Your task to perform on an android device: Open display settings Image 0: 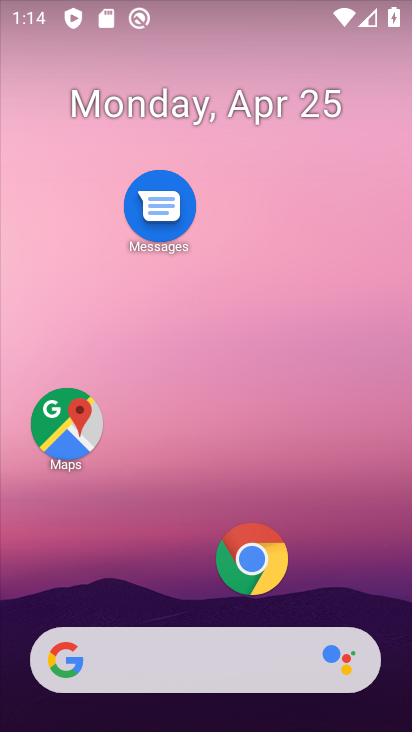
Step 0: drag from (166, 562) to (216, 184)
Your task to perform on an android device: Open display settings Image 1: 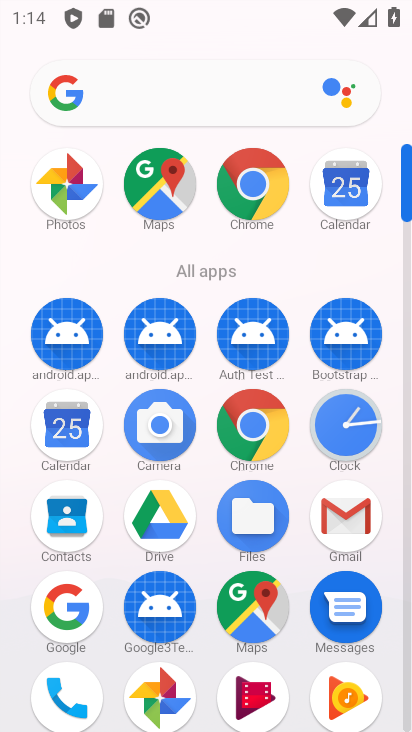
Step 1: drag from (204, 667) to (228, 284)
Your task to perform on an android device: Open display settings Image 2: 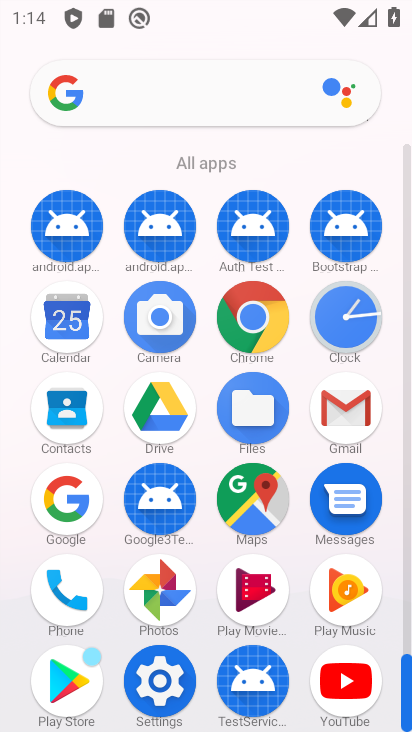
Step 2: click (158, 660)
Your task to perform on an android device: Open display settings Image 3: 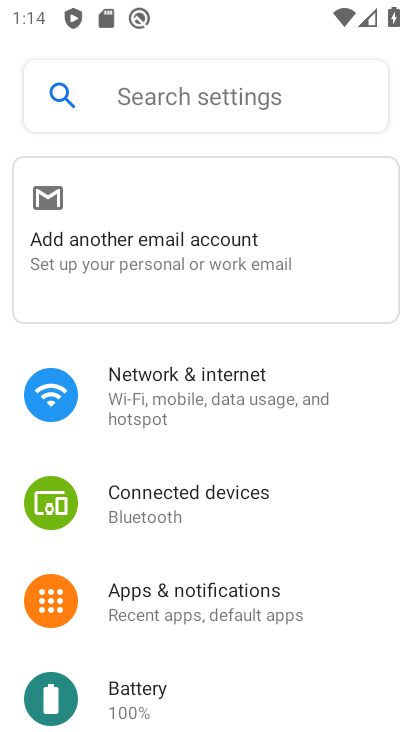
Step 3: drag from (203, 612) to (267, 357)
Your task to perform on an android device: Open display settings Image 4: 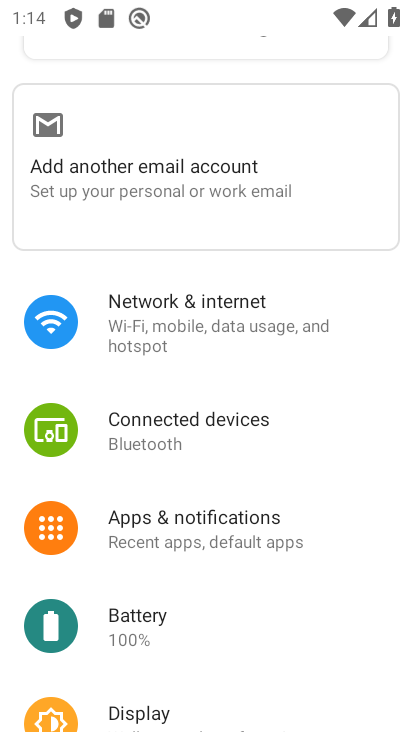
Step 4: click (139, 703)
Your task to perform on an android device: Open display settings Image 5: 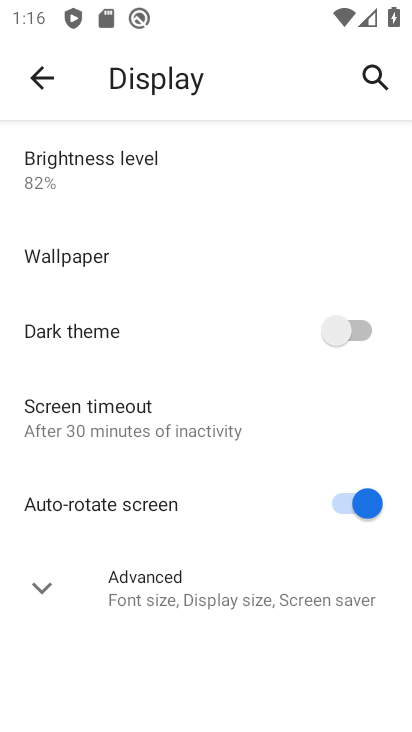
Step 5: task complete